Your task to perform on an android device: change alarm snooze length Image 0: 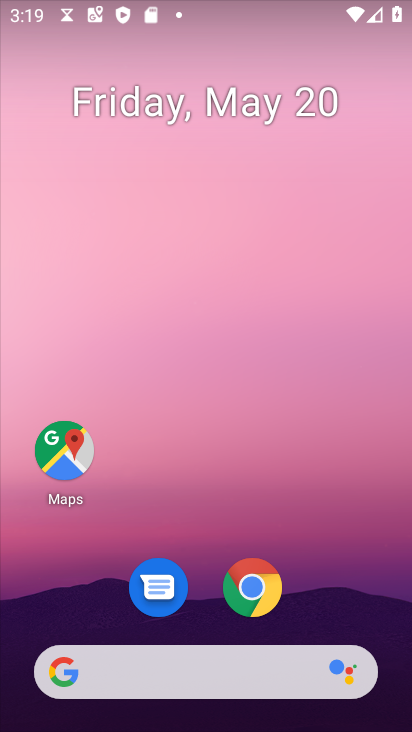
Step 0: drag from (368, 614) to (263, 237)
Your task to perform on an android device: change alarm snooze length Image 1: 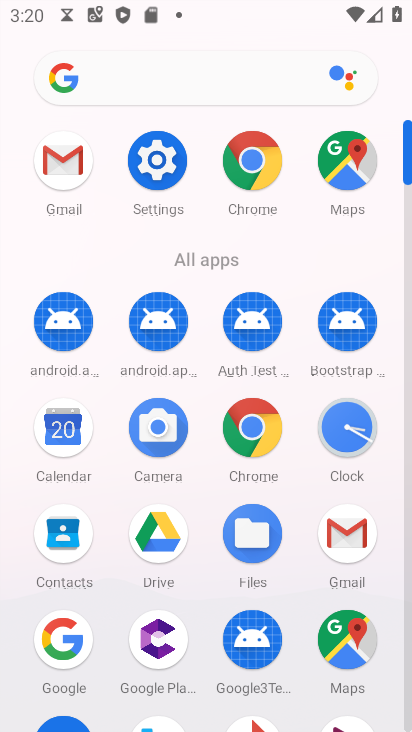
Step 1: click (326, 431)
Your task to perform on an android device: change alarm snooze length Image 2: 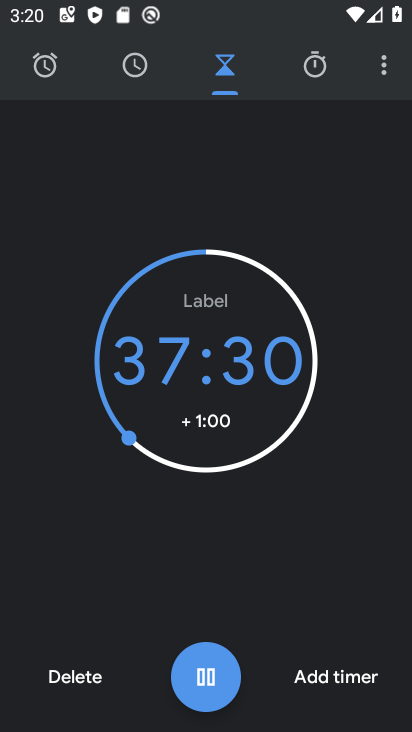
Step 2: click (379, 54)
Your task to perform on an android device: change alarm snooze length Image 3: 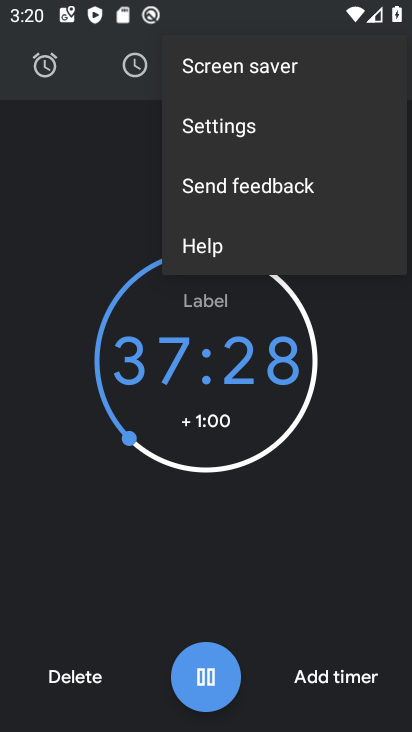
Step 3: click (326, 120)
Your task to perform on an android device: change alarm snooze length Image 4: 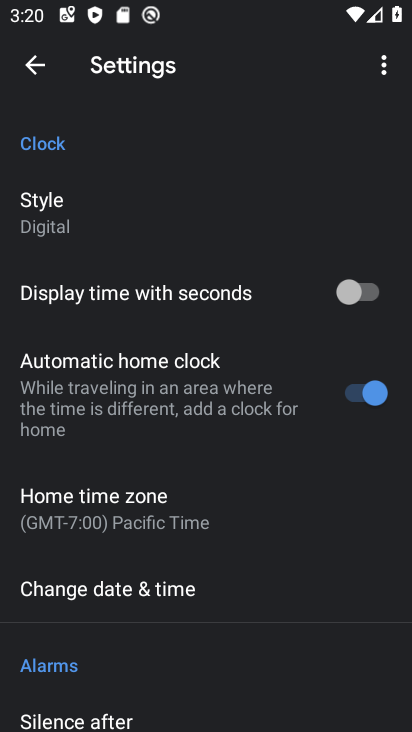
Step 4: drag from (227, 636) to (178, 295)
Your task to perform on an android device: change alarm snooze length Image 5: 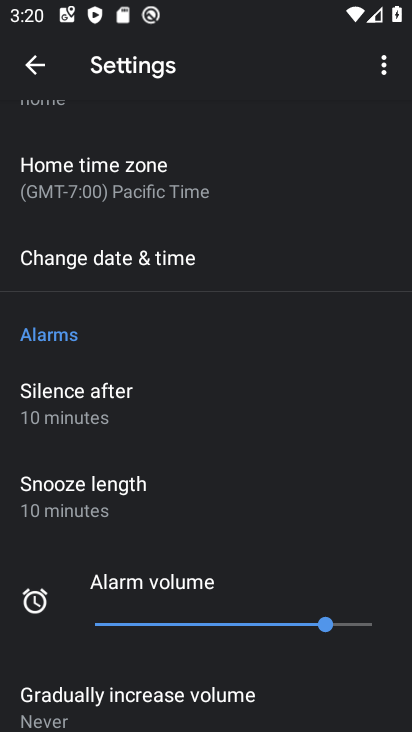
Step 5: drag from (218, 652) to (167, 345)
Your task to perform on an android device: change alarm snooze length Image 6: 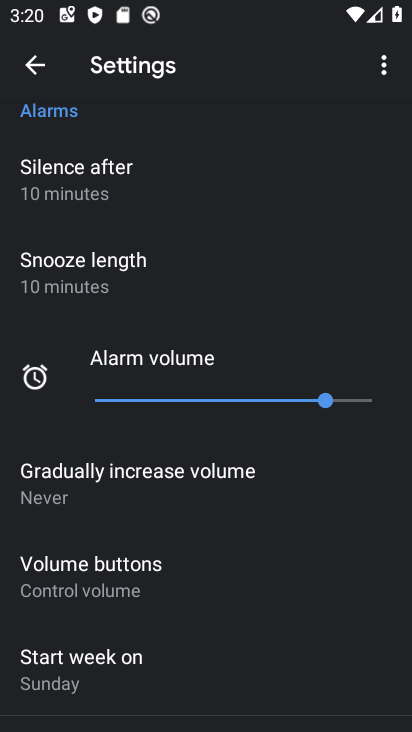
Step 6: click (159, 276)
Your task to perform on an android device: change alarm snooze length Image 7: 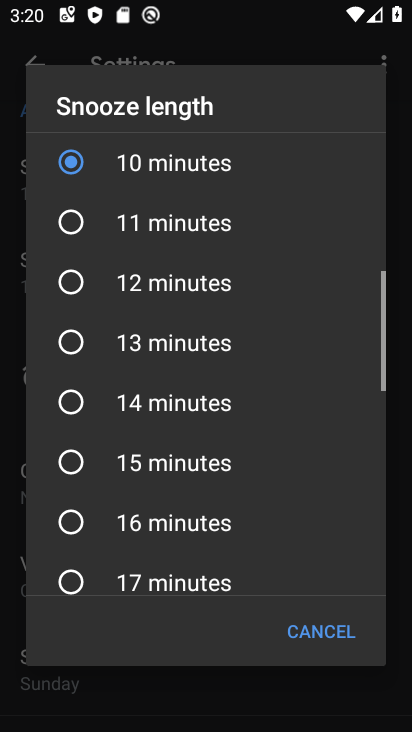
Step 7: click (159, 276)
Your task to perform on an android device: change alarm snooze length Image 8: 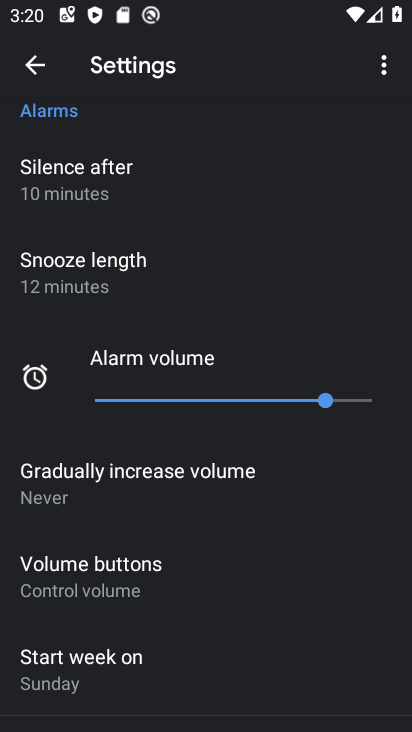
Step 8: task complete